Your task to perform on an android device: Check the weather Image 0: 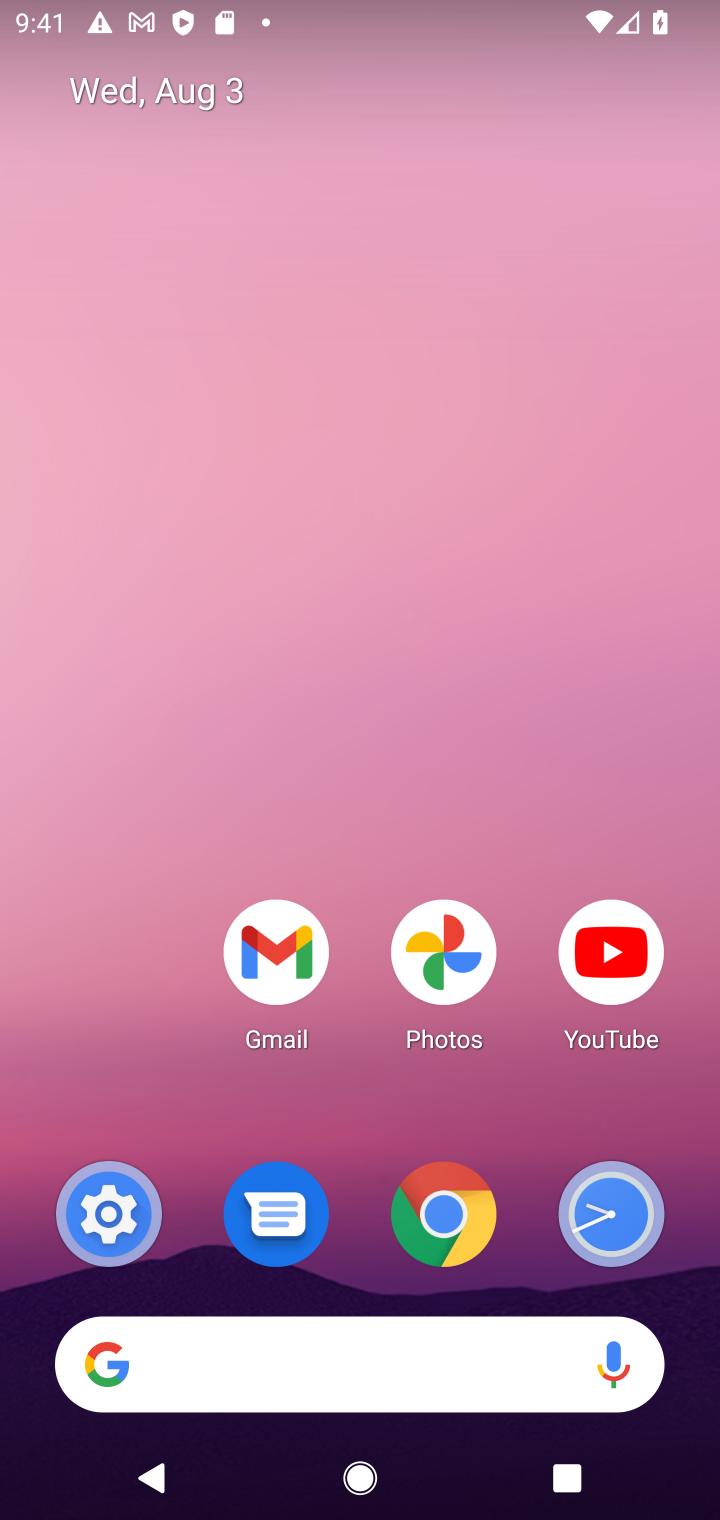
Step 0: click (466, 1193)
Your task to perform on an android device: Check the weather Image 1: 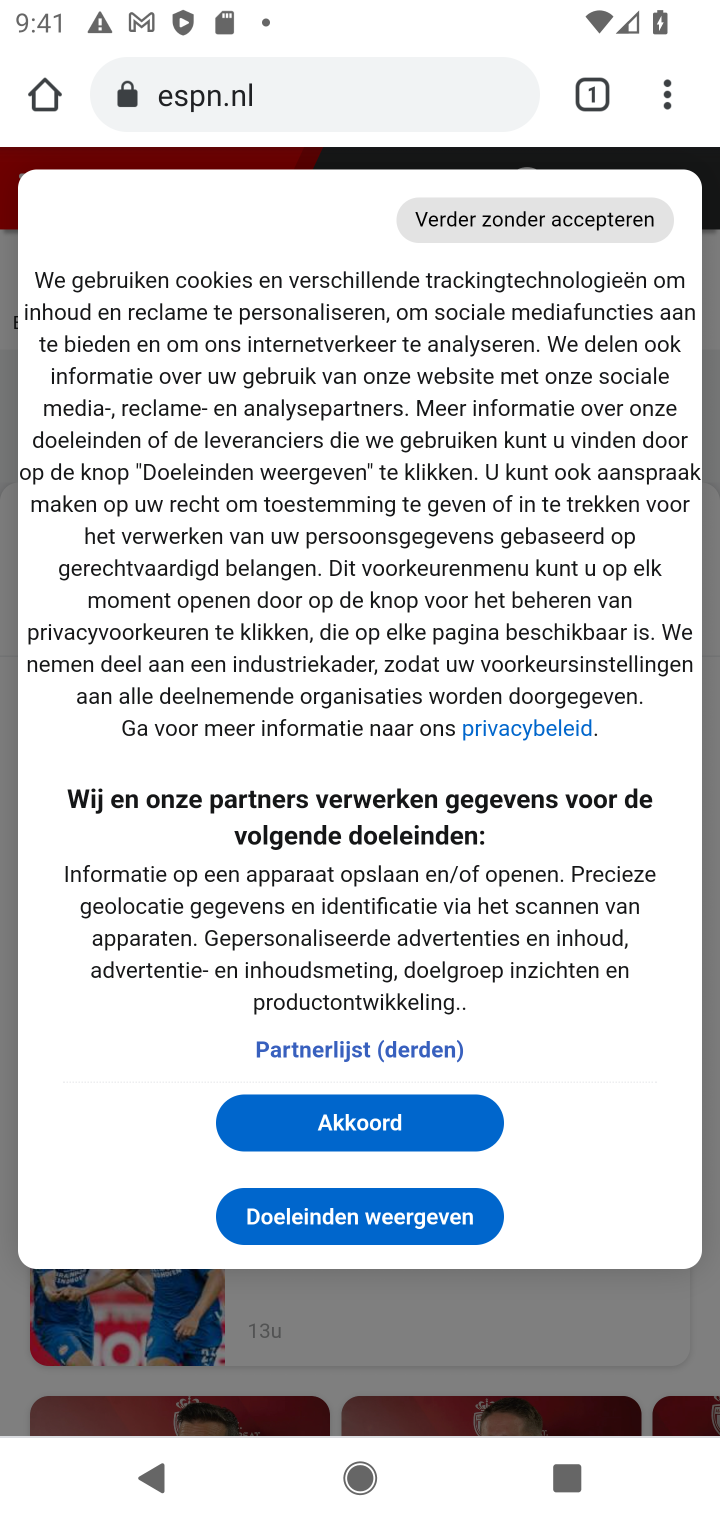
Step 1: click (356, 72)
Your task to perform on an android device: Check the weather Image 2: 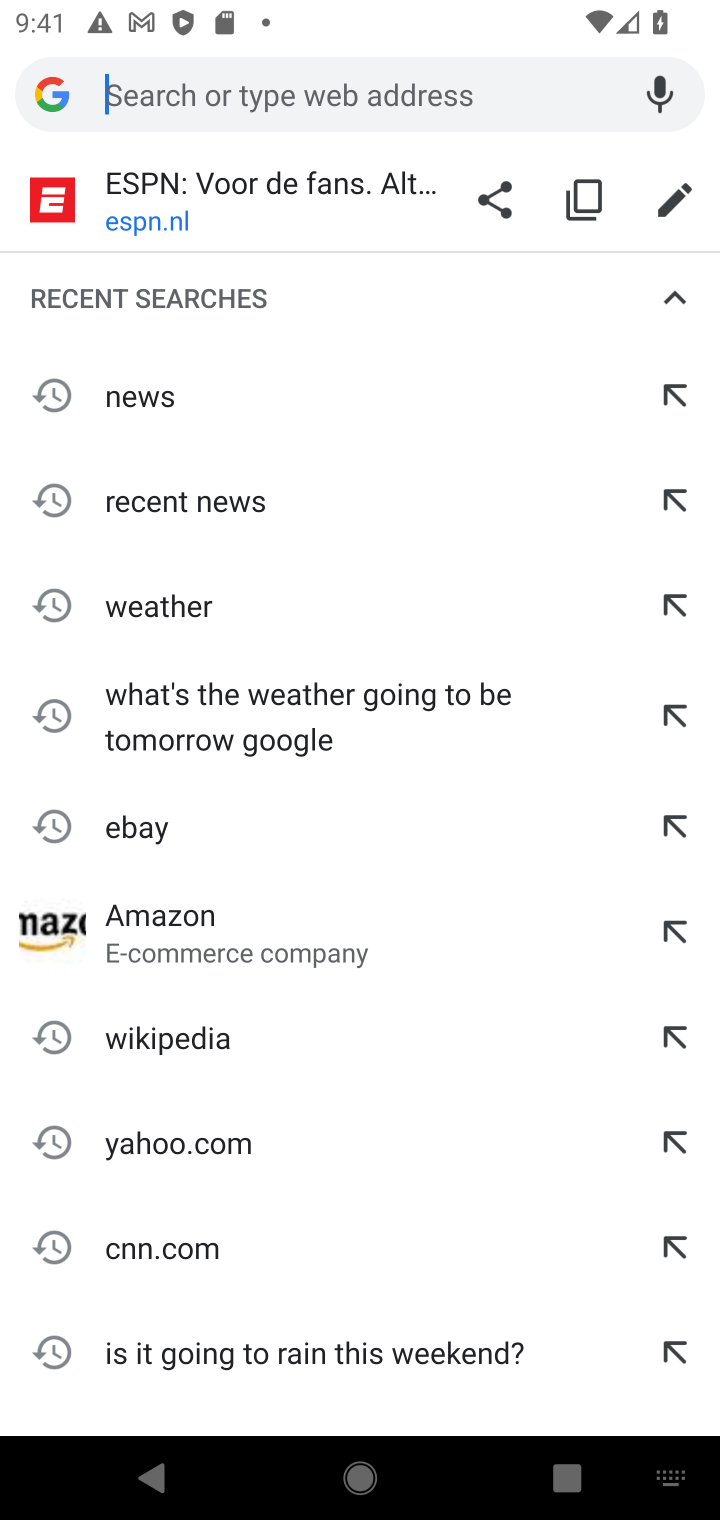
Step 2: type " weather"
Your task to perform on an android device: Check the weather Image 3: 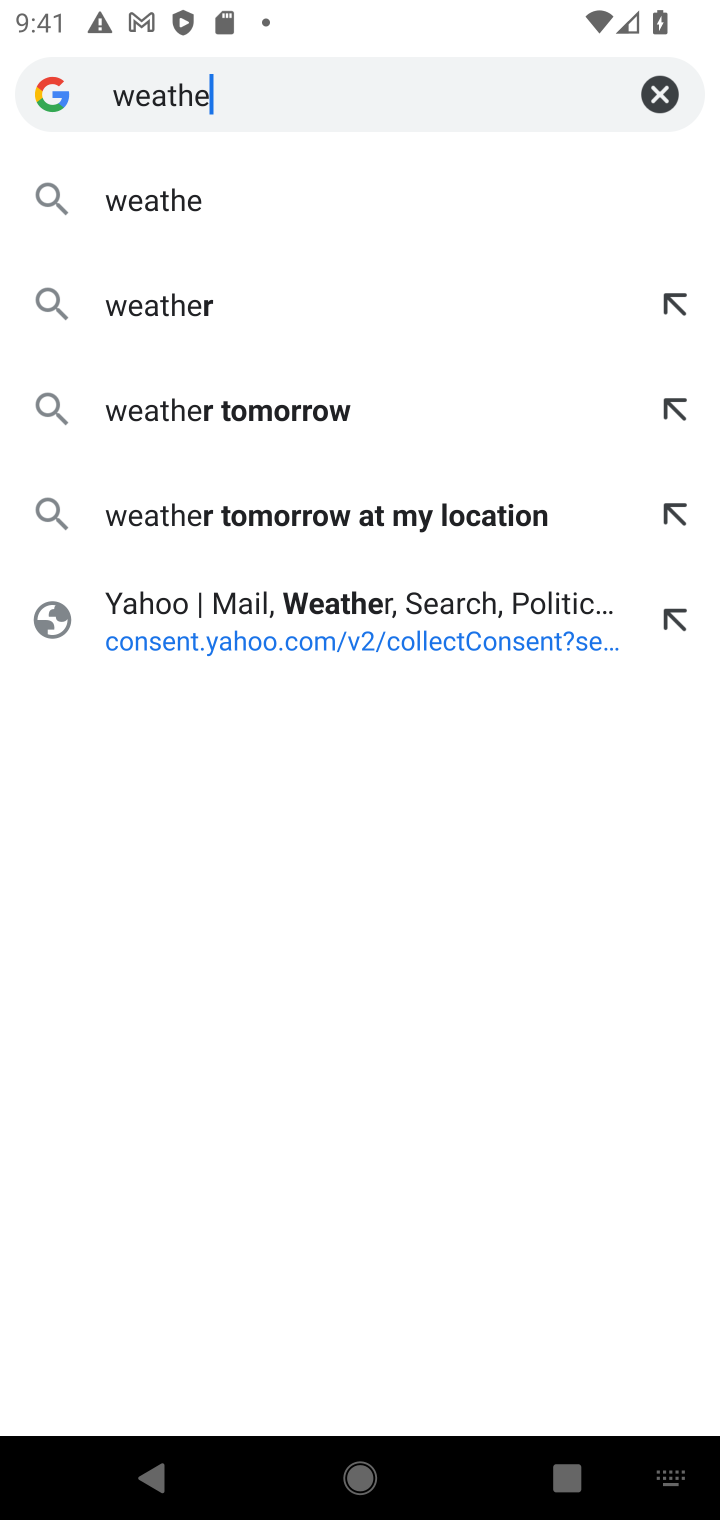
Step 3: type ""
Your task to perform on an android device: Check the weather Image 4: 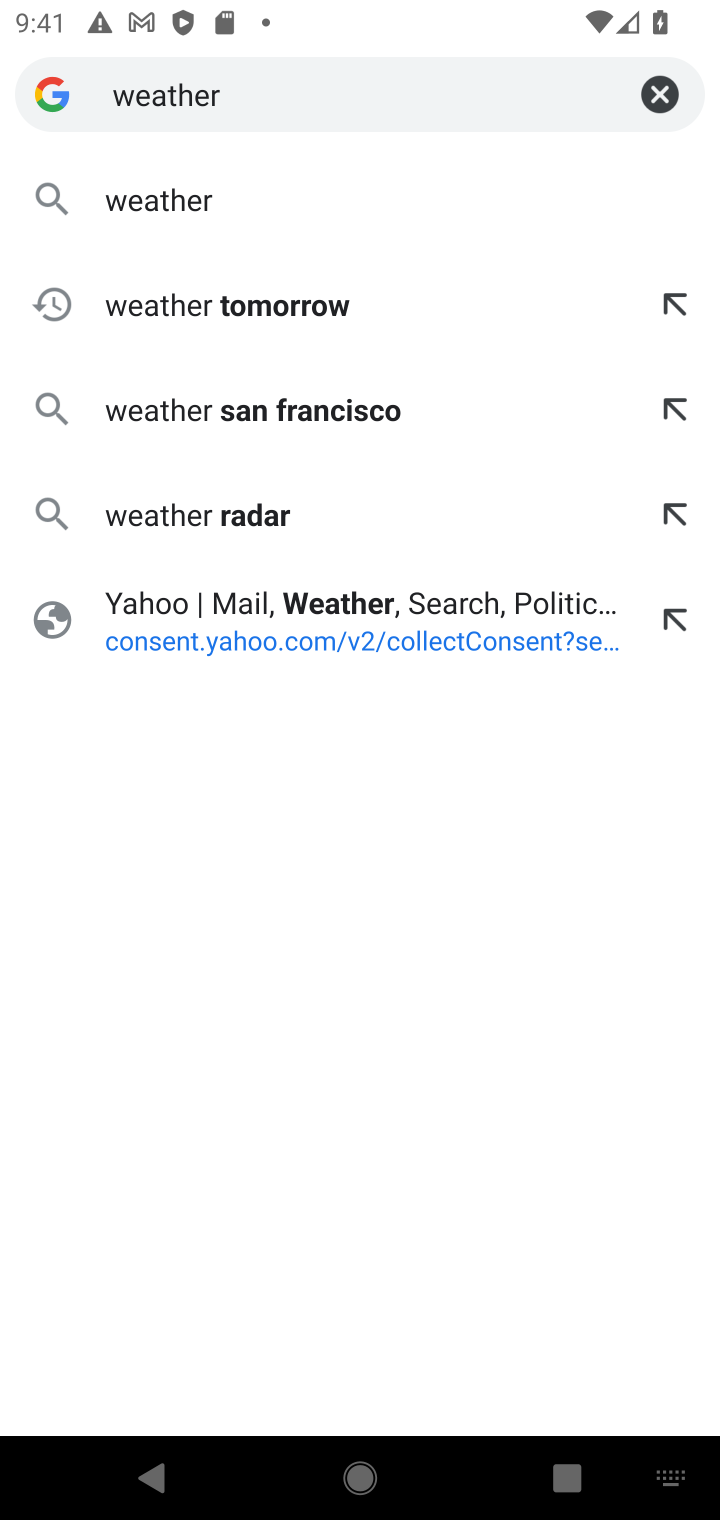
Step 4: click (136, 212)
Your task to perform on an android device: Check the weather Image 5: 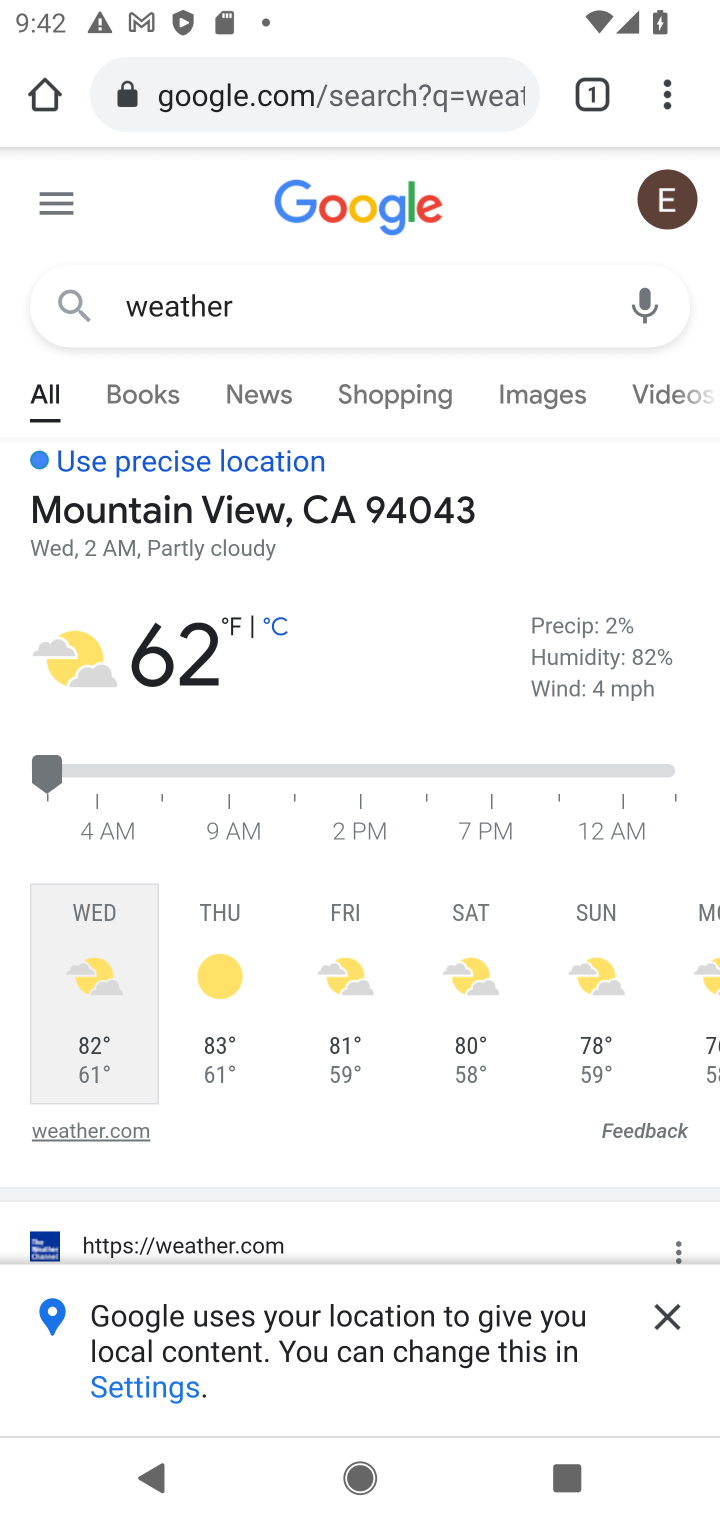
Step 5: task complete